Your task to perform on an android device: Open the web browser Image 0: 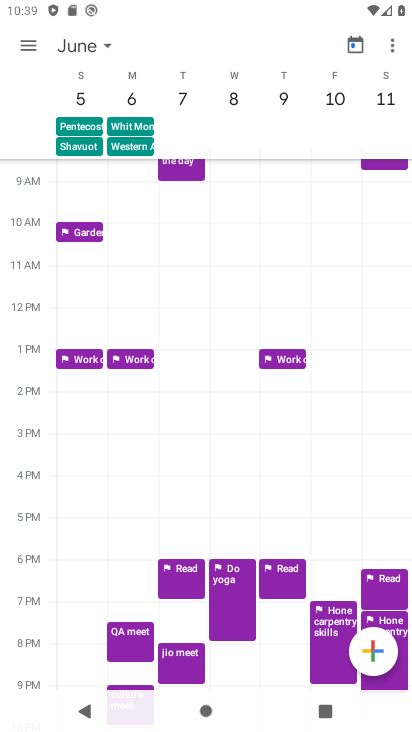
Step 0: press home button
Your task to perform on an android device: Open the web browser Image 1: 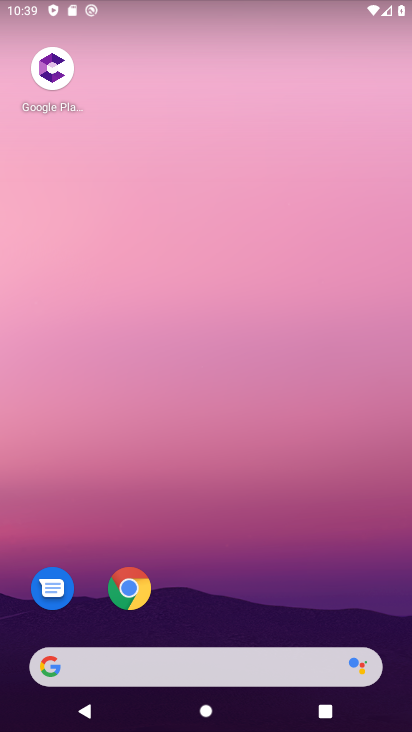
Step 1: click (129, 591)
Your task to perform on an android device: Open the web browser Image 2: 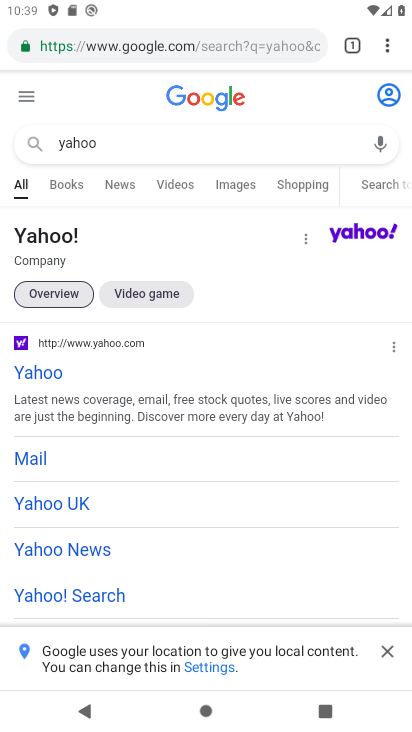
Step 2: task complete